Your task to perform on an android device: change the clock display to digital Image 0: 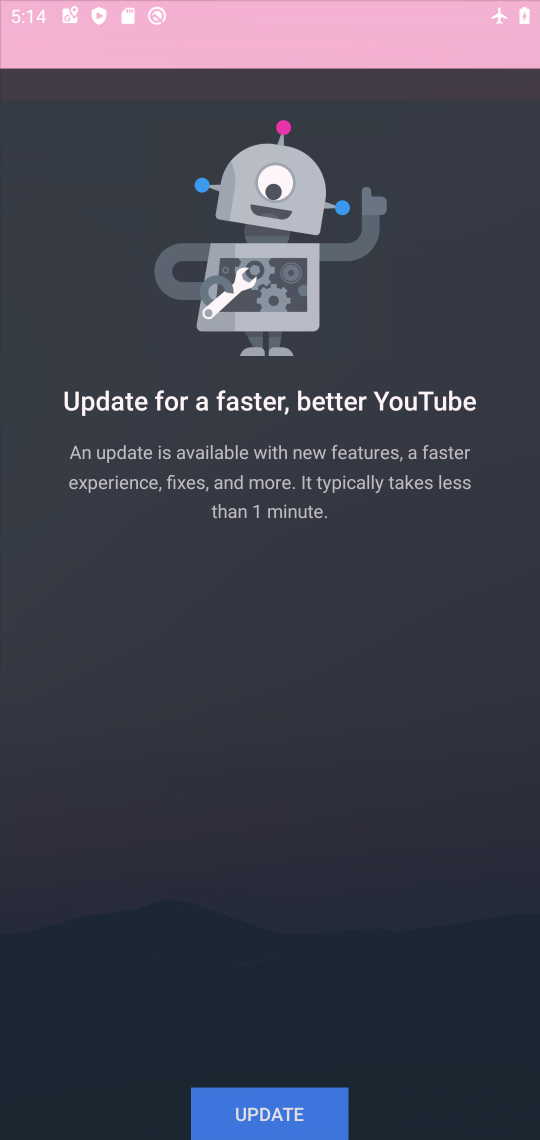
Step 0: press home button
Your task to perform on an android device: change the clock display to digital Image 1: 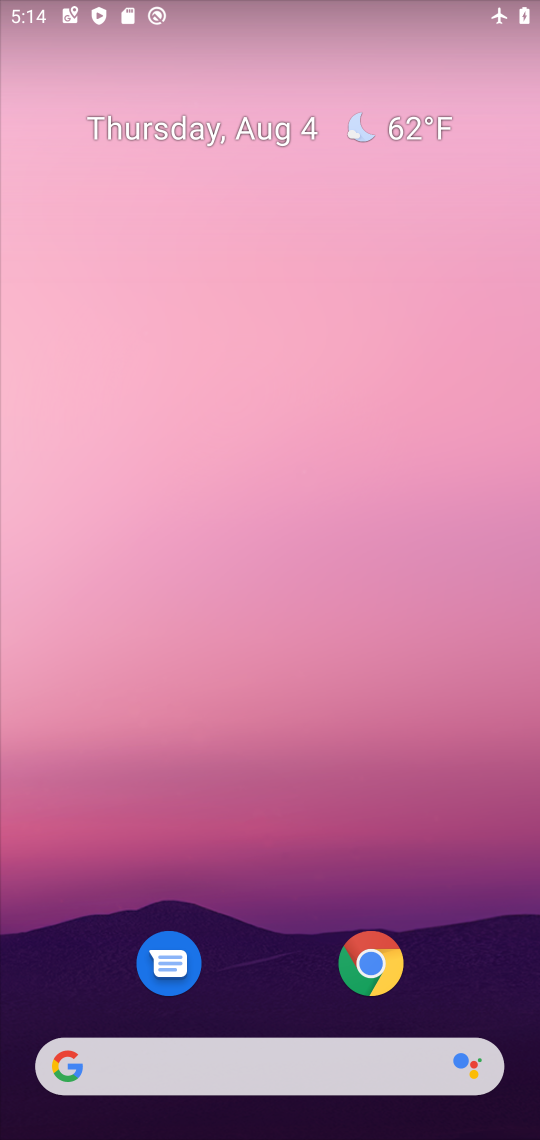
Step 1: press home button
Your task to perform on an android device: change the clock display to digital Image 2: 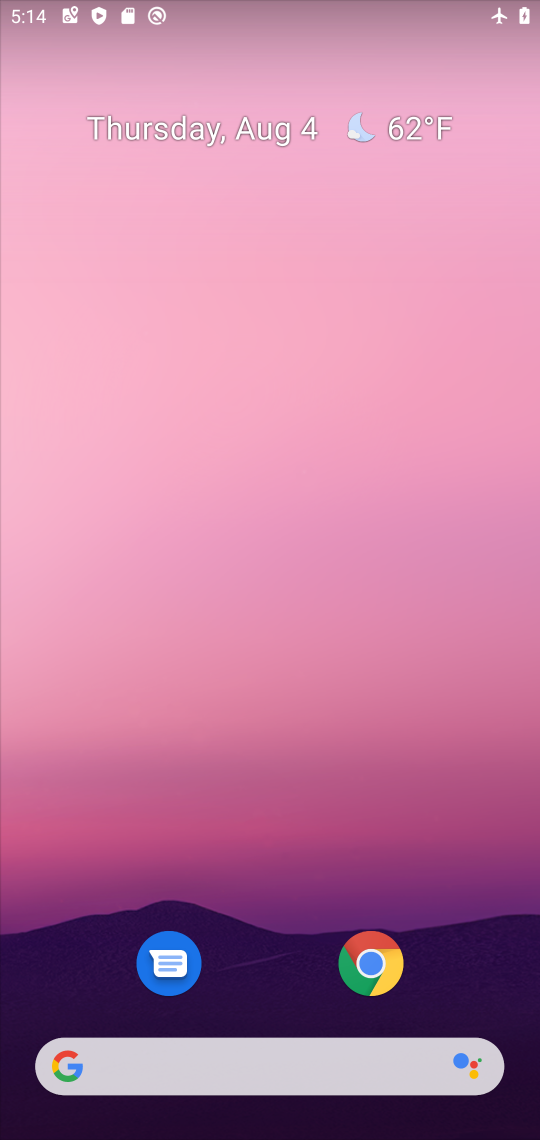
Step 2: drag from (303, 870) to (303, 244)
Your task to perform on an android device: change the clock display to digital Image 3: 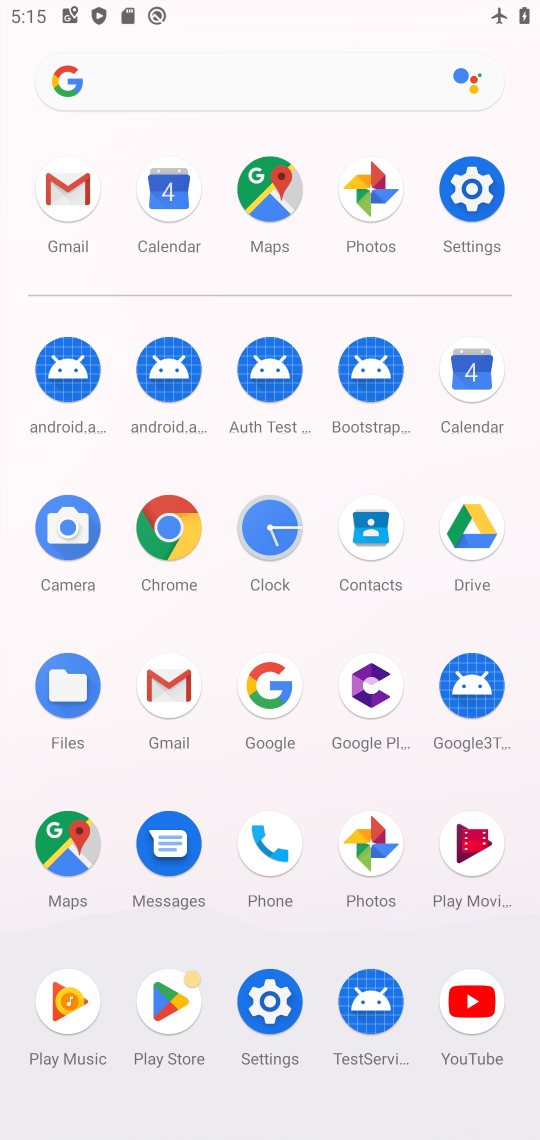
Step 3: click (276, 523)
Your task to perform on an android device: change the clock display to digital Image 4: 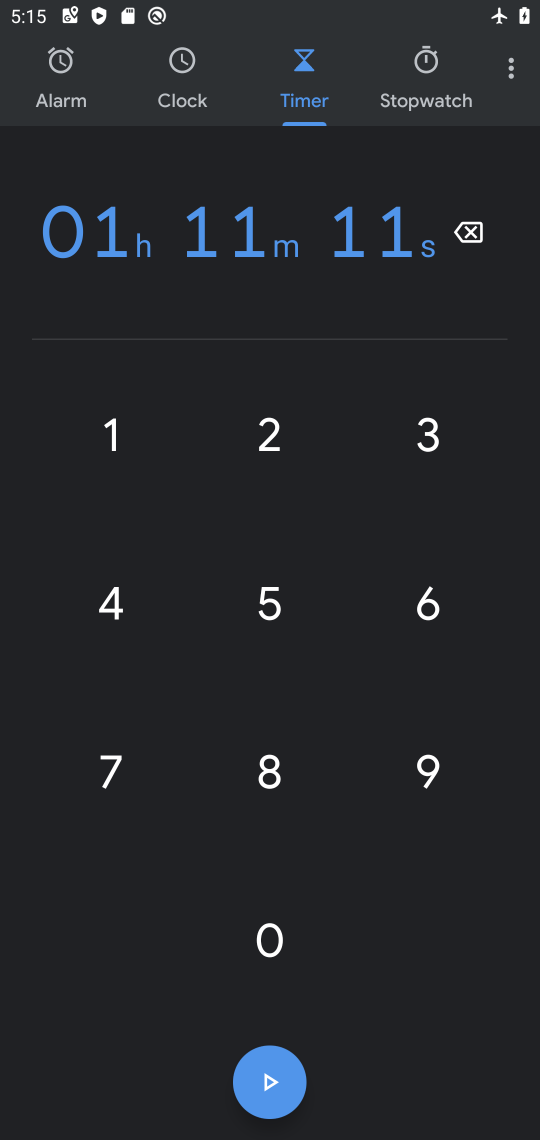
Step 4: click (521, 67)
Your task to perform on an android device: change the clock display to digital Image 5: 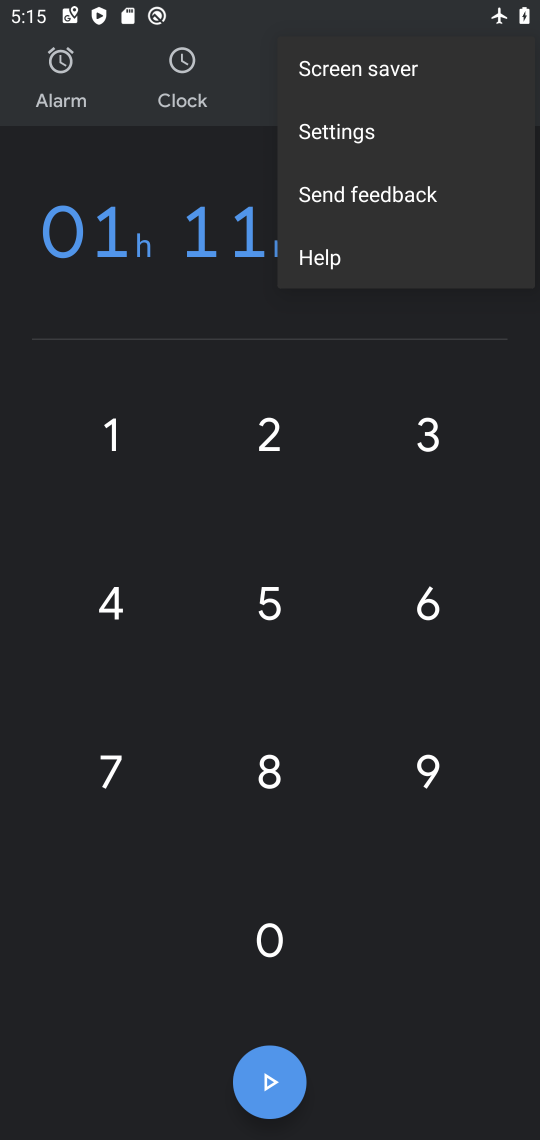
Step 5: click (342, 125)
Your task to perform on an android device: change the clock display to digital Image 6: 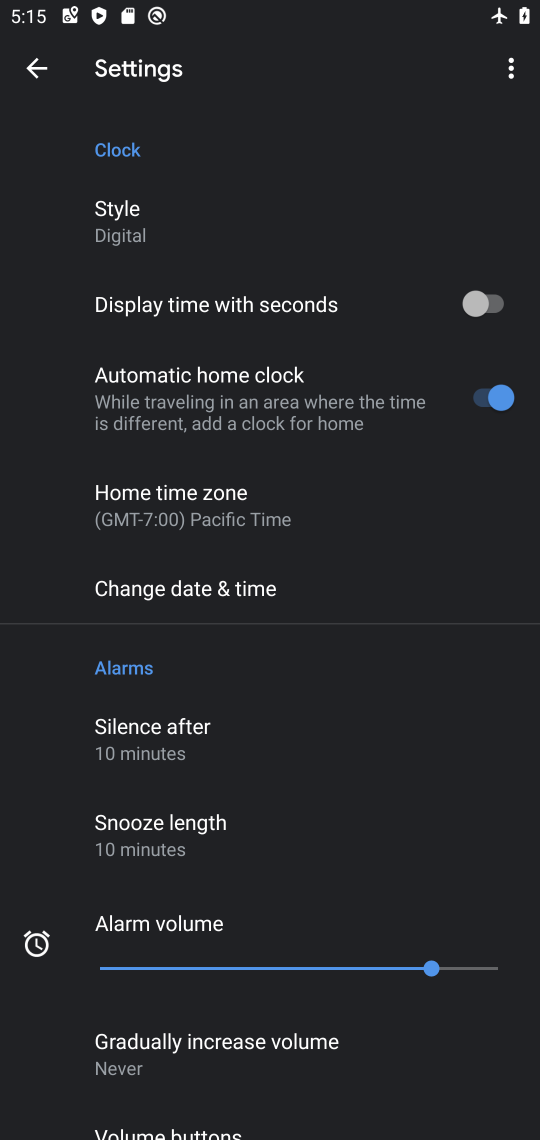
Step 6: task complete